Your task to perform on an android device: change the clock display to digital Image 0: 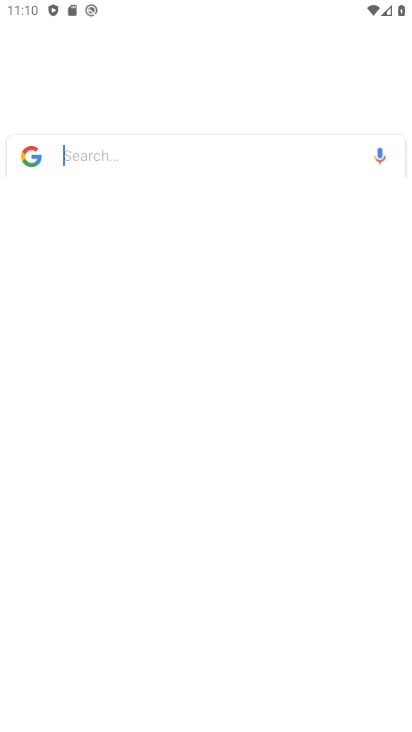
Step 0: drag from (249, 689) to (160, 262)
Your task to perform on an android device: change the clock display to digital Image 1: 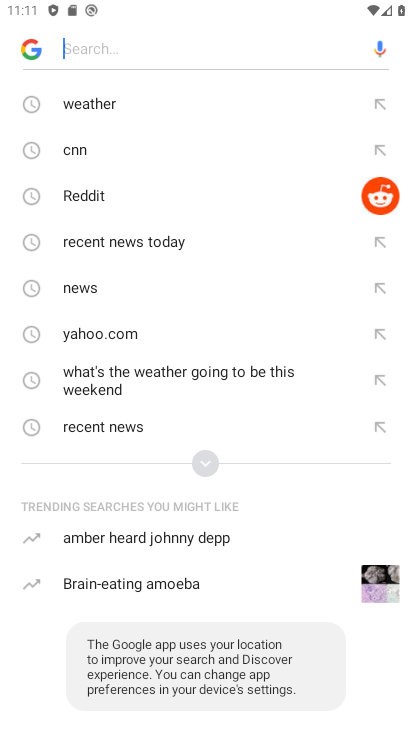
Step 1: press back button
Your task to perform on an android device: change the clock display to digital Image 2: 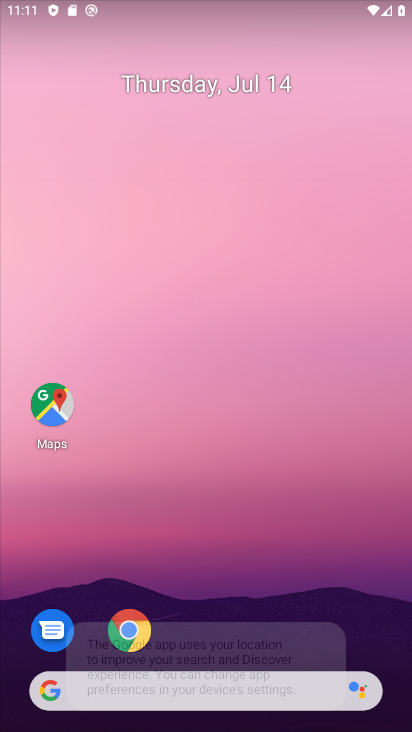
Step 2: drag from (227, 607) to (144, 74)
Your task to perform on an android device: change the clock display to digital Image 3: 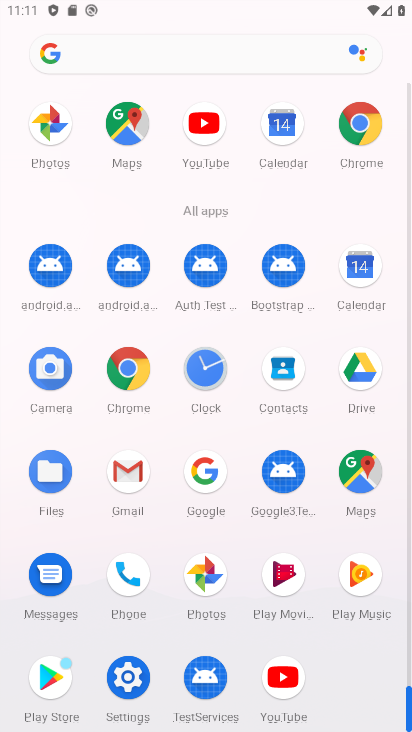
Step 3: click (210, 366)
Your task to perform on an android device: change the clock display to digital Image 4: 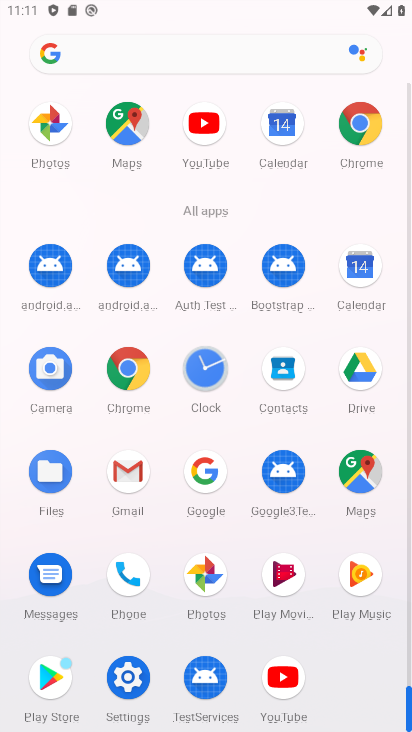
Step 4: click (208, 362)
Your task to perform on an android device: change the clock display to digital Image 5: 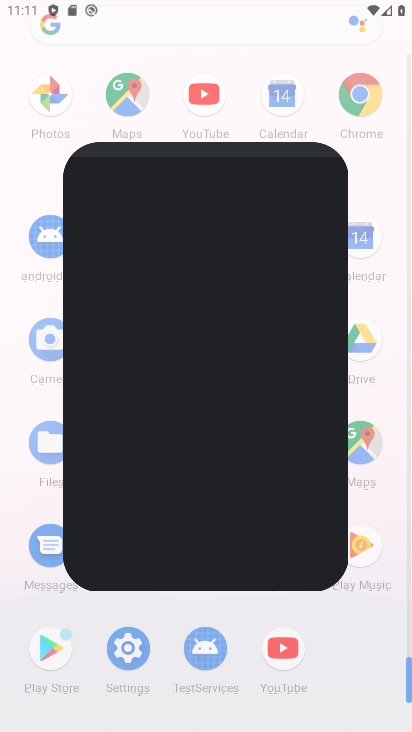
Step 5: click (210, 362)
Your task to perform on an android device: change the clock display to digital Image 6: 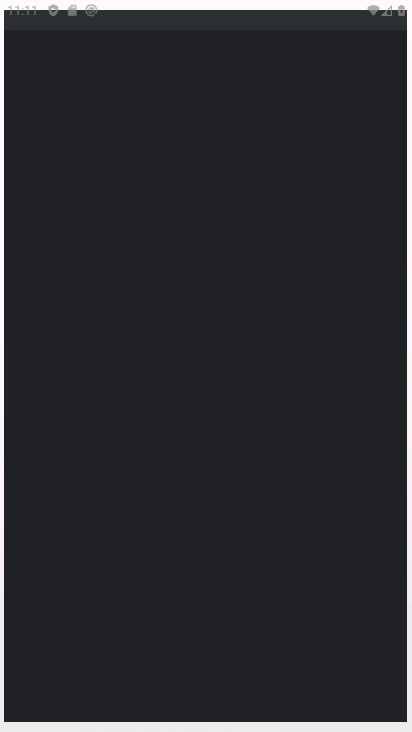
Step 6: click (210, 362)
Your task to perform on an android device: change the clock display to digital Image 7: 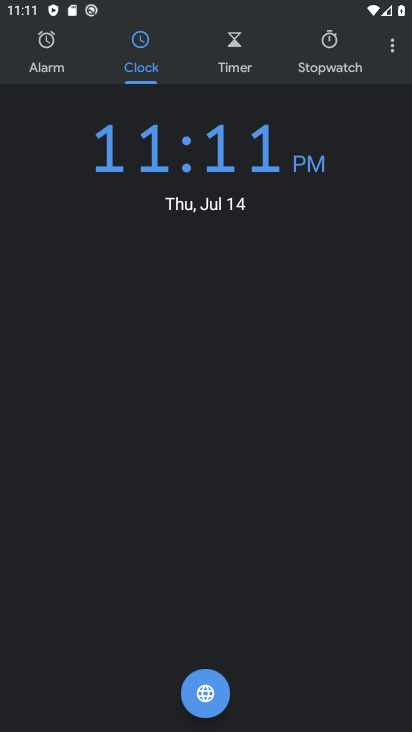
Step 7: click (386, 43)
Your task to perform on an android device: change the clock display to digital Image 8: 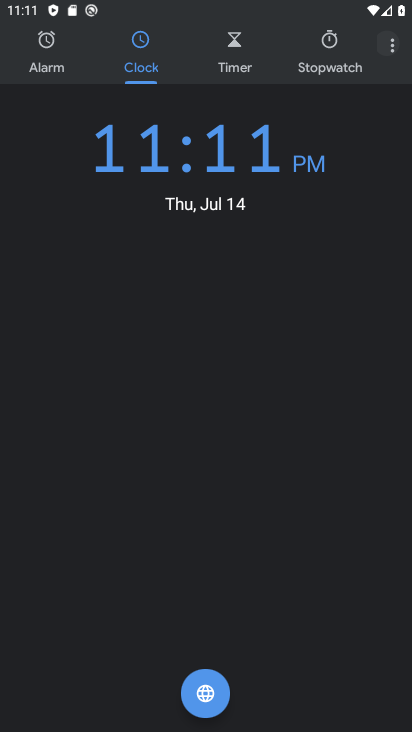
Step 8: click (386, 42)
Your task to perform on an android device: change the clock display to digital Image 9: 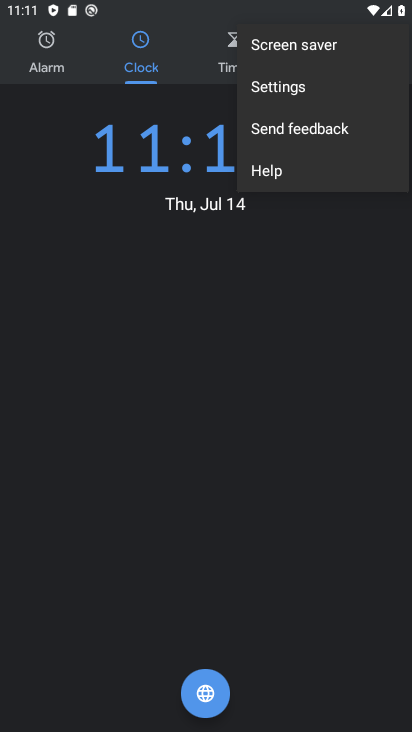
Step 9: click (272, 86)
Your task to perform on an android device: change the clock display to digital Image 10: 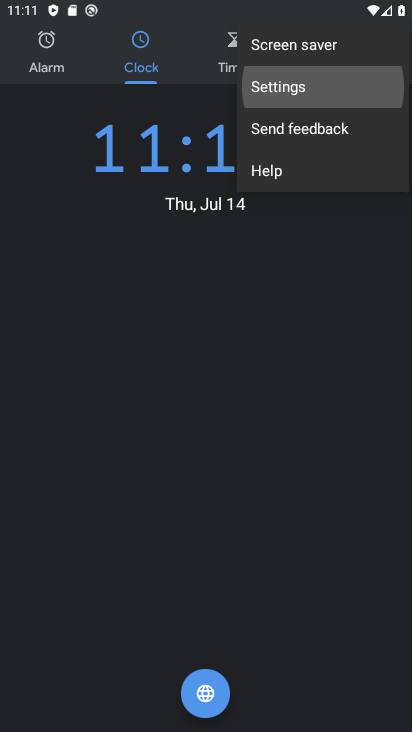
Step 10: click (272, 86)
Your task to perform on an android device: change the clock display to digital Image 11: 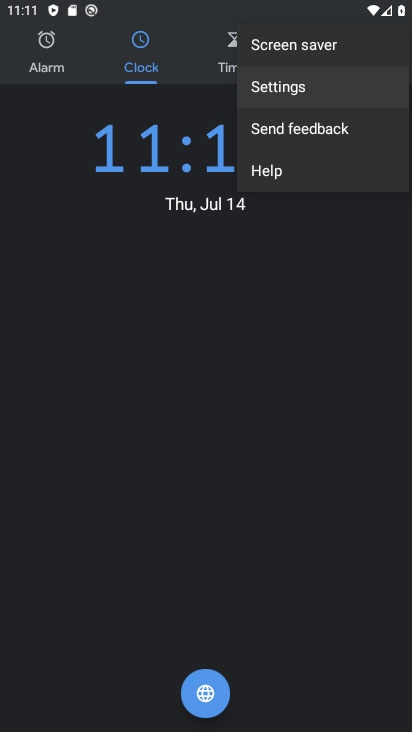
Step 11: click (272, 86)
Your task to perform on an android device: change the clock display to digital Image 12: 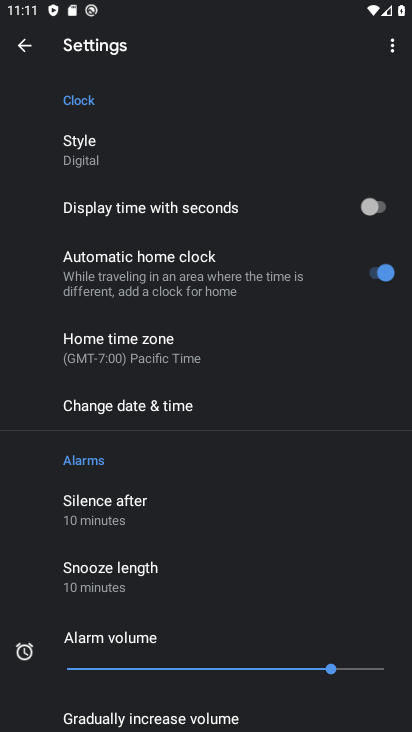
Step 12: task complete